Your task to perform on an android device: Open display settings Image 0: 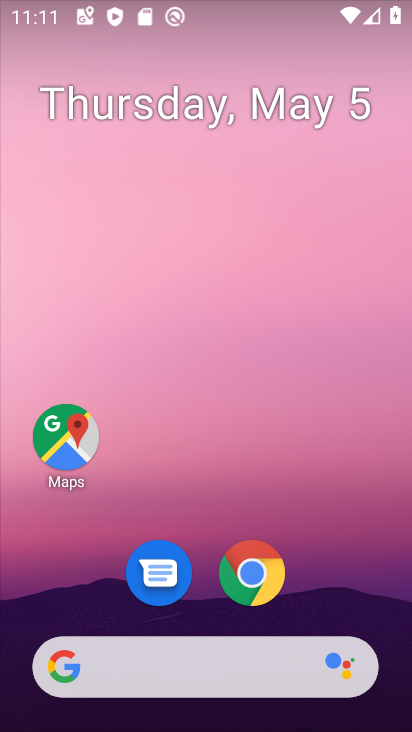
Step 0: drag from (343, 616) to (316, 199)
Your task to perform on an android device: Open display settings Image 1: 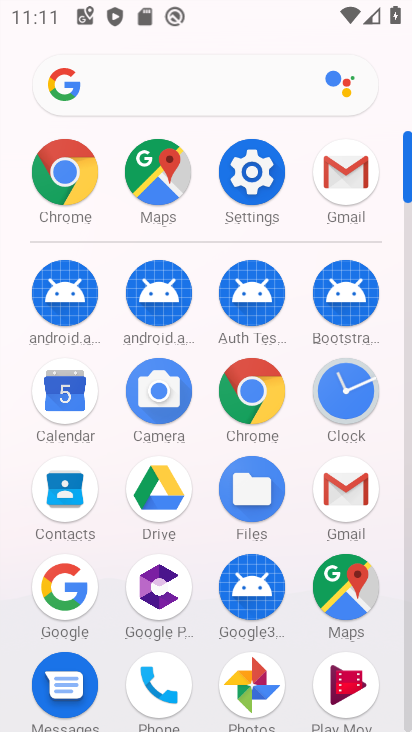
Step 1: click (254, 164)
Your task to perform on an android device: Open display settings Image 2: 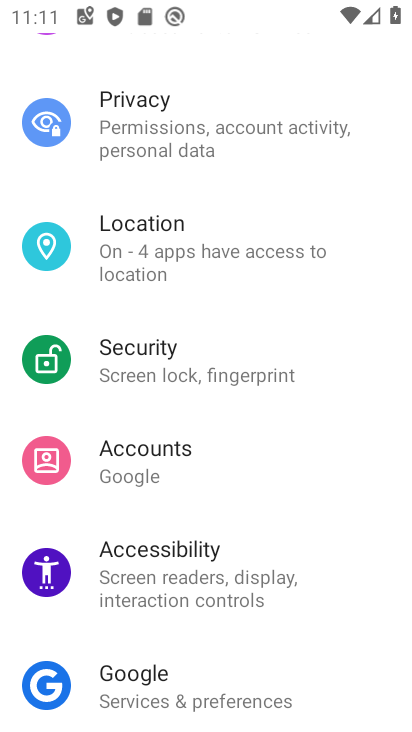
Step 2: drag from (247, 655) to (298, 194)
Your task to perform on an android device: Open display settings Image 3: 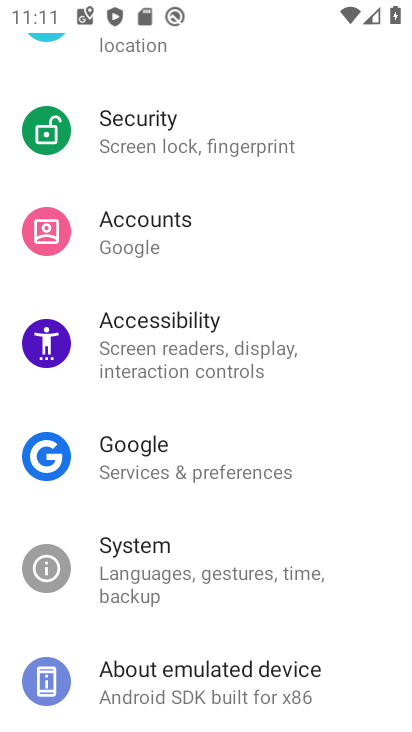
Step 3: drag from (246, 102) to (202, 698)
Your task to perform on an android device: Open display settings Image 4: 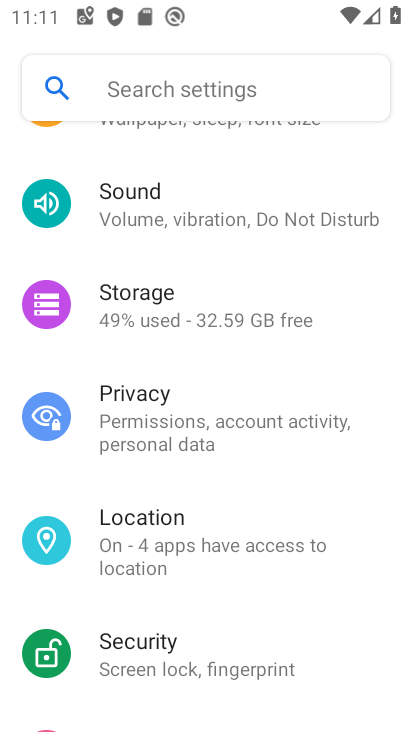
Step 4: drag from (217, 171) to (190, 635)
Your task to perform on an android device: Open display settings Image 5: 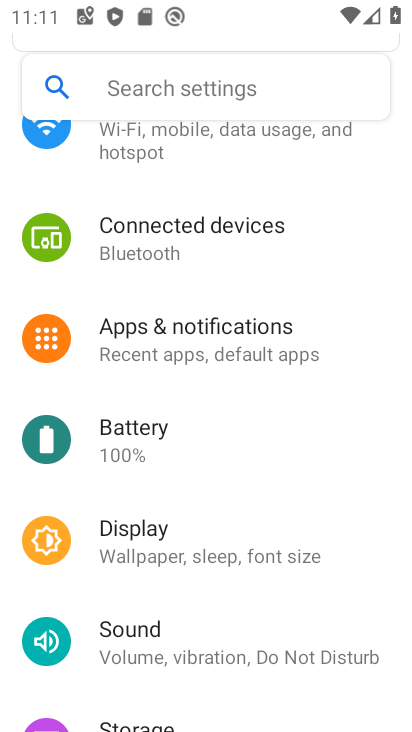
Step 5: click (231, 555)
Your task to perform on an android device: Open display settings Image 6: 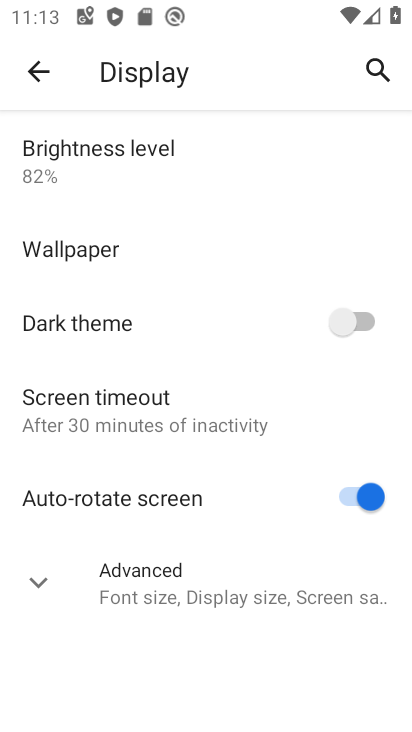
Step 6: task complete